Your task to perform on an android device: Open CNN.com Image 0: 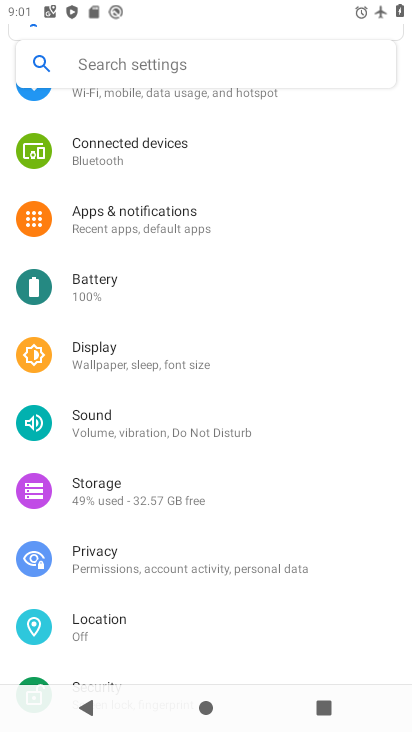
Step 0: press home button
Your task to perform on an android device: Open CNN.com Image 1: 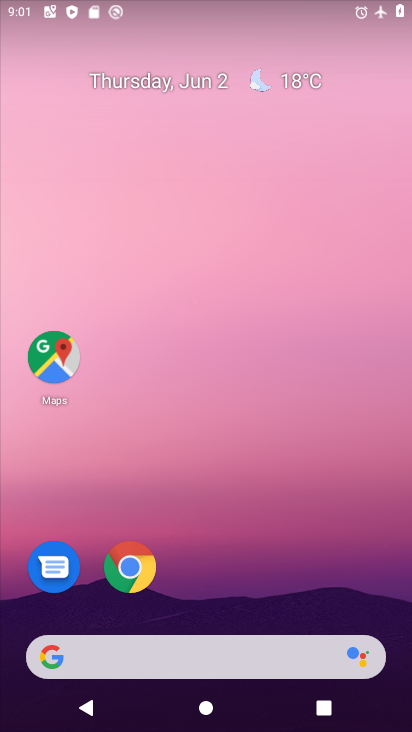
Step 1: click (117, 573)
Your task to perform on an android device: Open CNN.com Image 2: 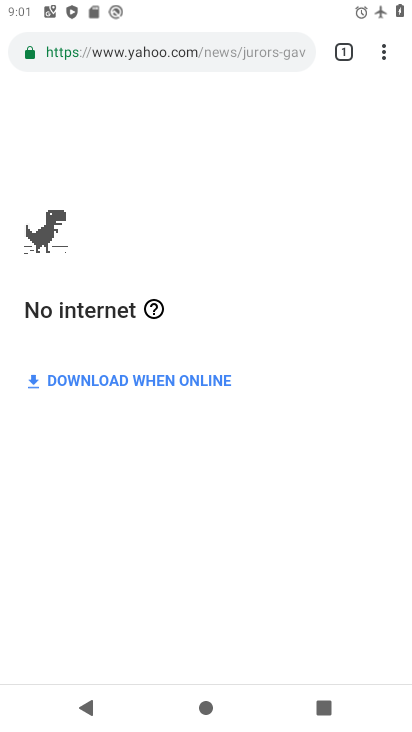
Step 2: click (206, 47)
Your task to perform on an android device: Open CNN.com Image 3: 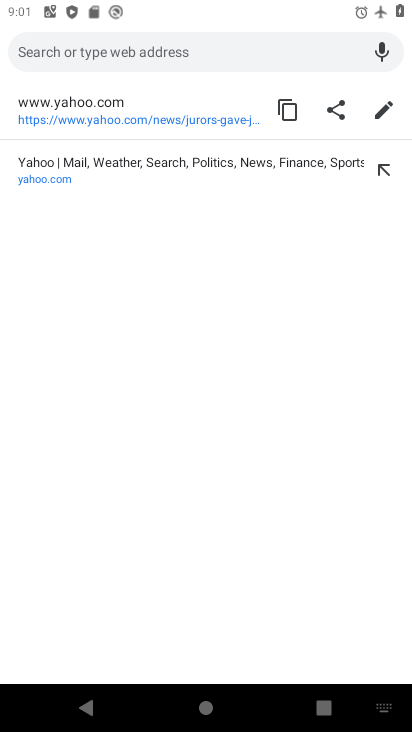
Step 3: type "CNN.com"
Your task to perform on an android device: Open CNN.com Image 4: 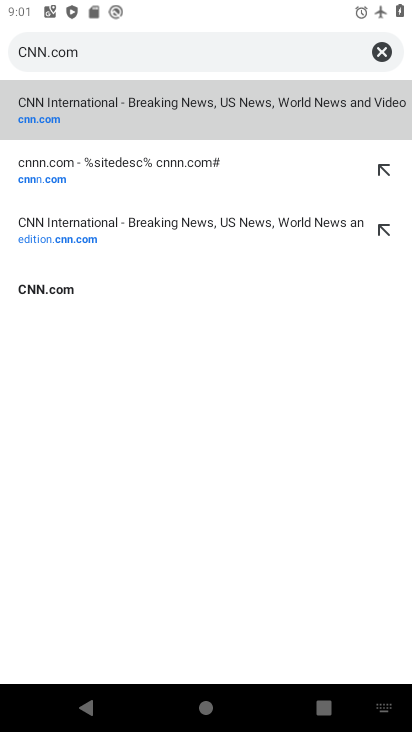
Step 4: click (160, 119)
Your task to perform on an android device: Open CNN.com Image 5: 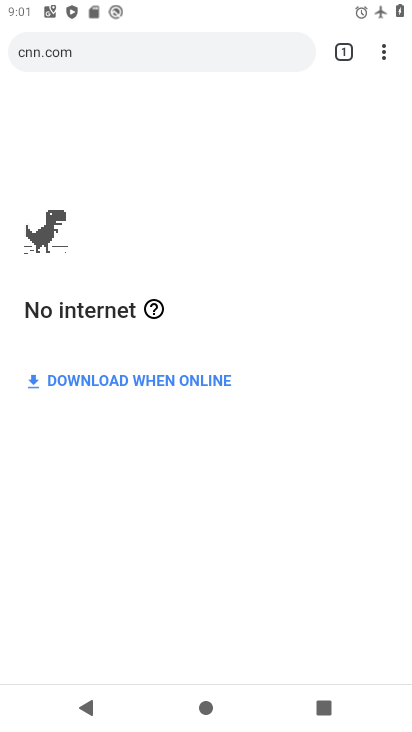
Step 5: task complete